Your task to perform on an android device: toggle javascript in the chrome app Image 0: 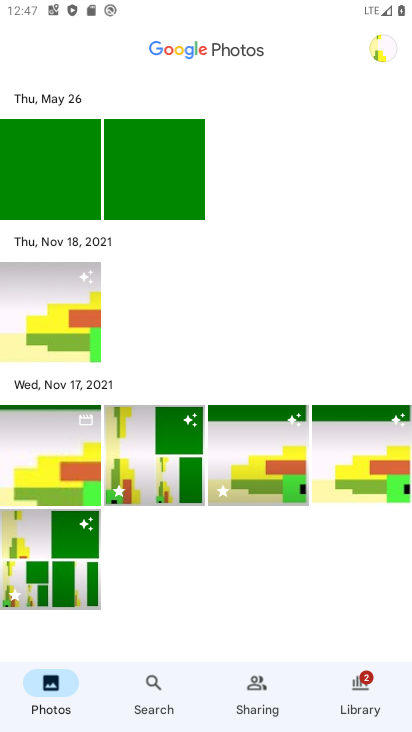
Step 0: press home button
Your task to perform on an android device: toggle javascript in the chrome app Image 1: 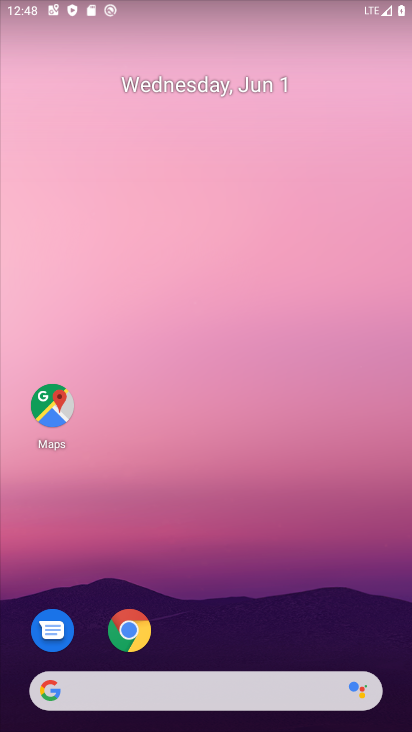
Step 1: click (110, 651)
Your task to perform on an android device: toggle javascript in the chrome app Image 2: 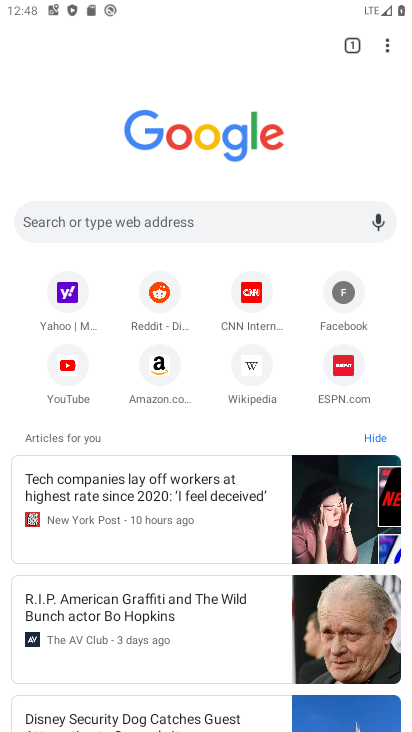
Step 2: drag from (385, 39) to (250, 376)
Your task to perform on an android device: toggle javascript in the chrome app Image 3: 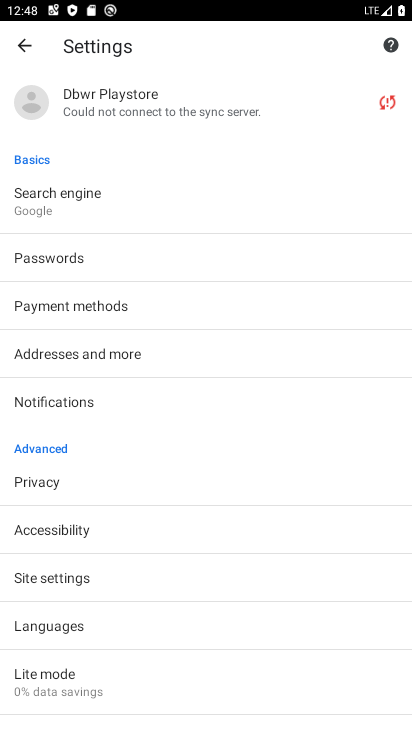
Step 3: click (93, 582)
Your task to perform on an android device: toggle javascript in the chrome app Image 4: 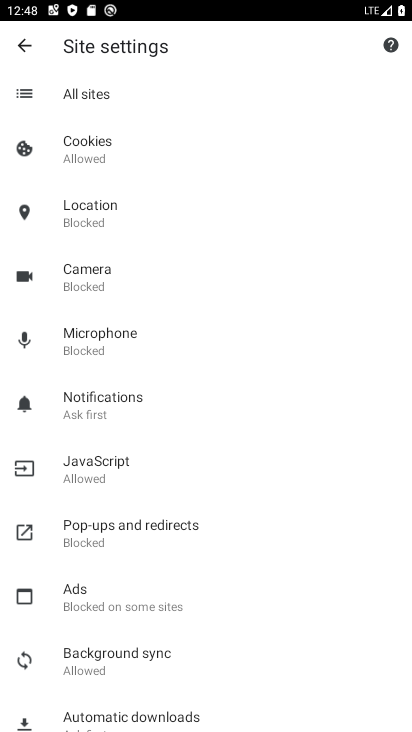
Step 4: click (93, 482)
Your task to perform on an android device: toggle javascript in the chrome app Image 5: 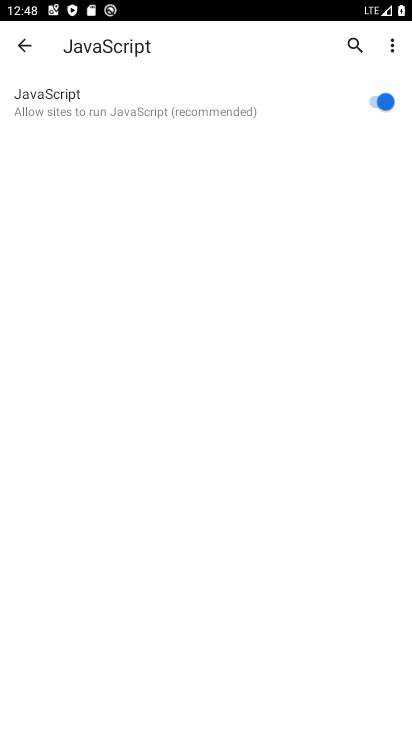
Step 5: click (380, 95)
Your task to perform on an android device: toggle javascript in the chrome app Image 6: 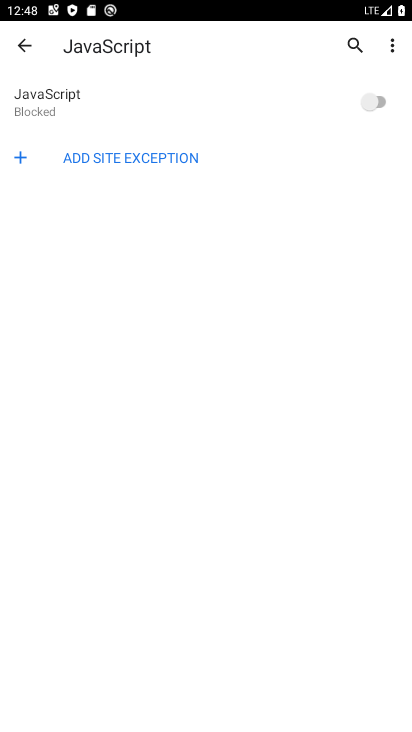
Step 6: click (379, 105)
Your task to perform on an android device: toggle javascript in the chrome app Image 7: 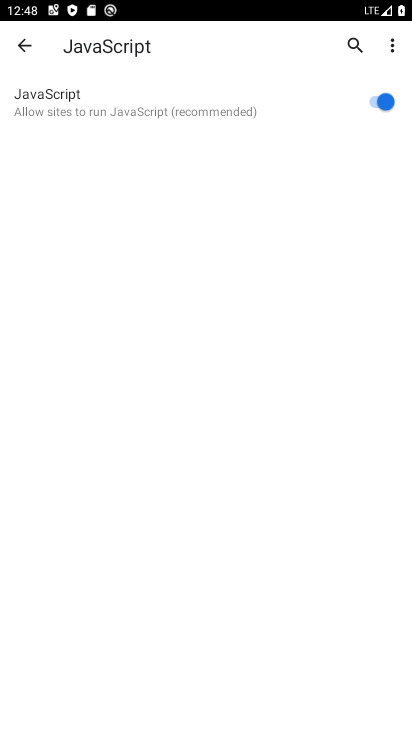
Step 7: task complete